Your task to perform on an android device: see tabs open on other devices in the chrome app Image 0: 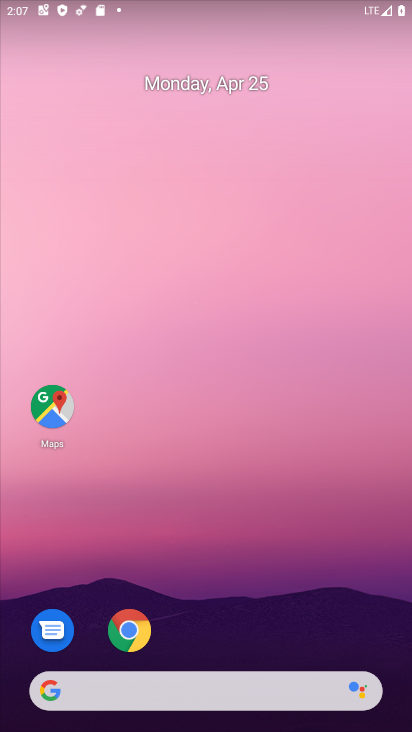
Step 0: drag from (349, 636) to (352, 198)
Your task to perform on an android device: see tabs open on other devices in the chrome app Image 1: 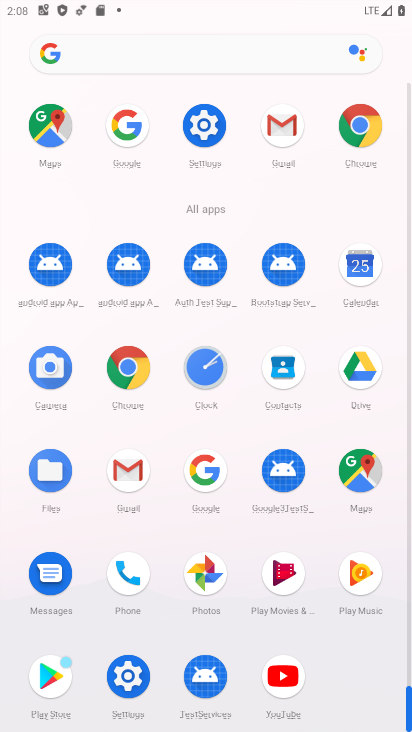
Step 1: click (370, 127)
Your task to perform on an android device: see tabs open on other devices in the chrome app Image 2: 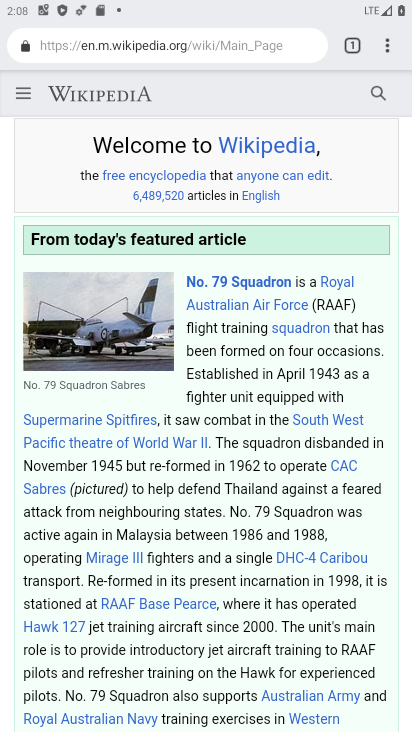
Step 2: click (387, 49)
Your task to perform on an android device: see tabs open on other devices in the chrome app Image 3: 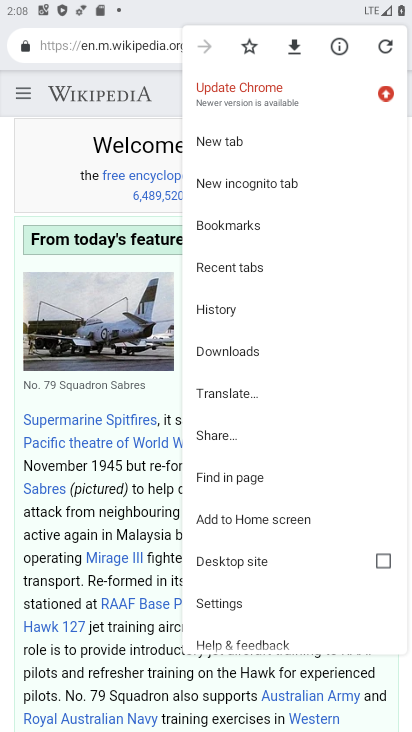
Step 3: click (253, 261)
Your task to perform on an android device: see tabs open on other devices in the chrome app Image 4: 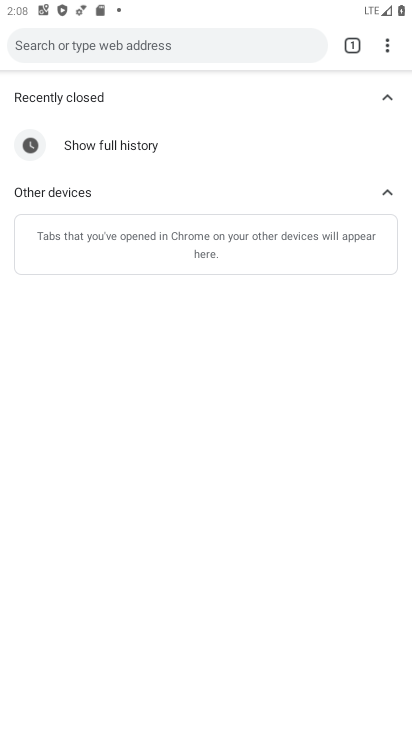
Step 4: click (351, 47)
Your task to perform on an android device: see tabs open on other devices in the chrome app Image 5: 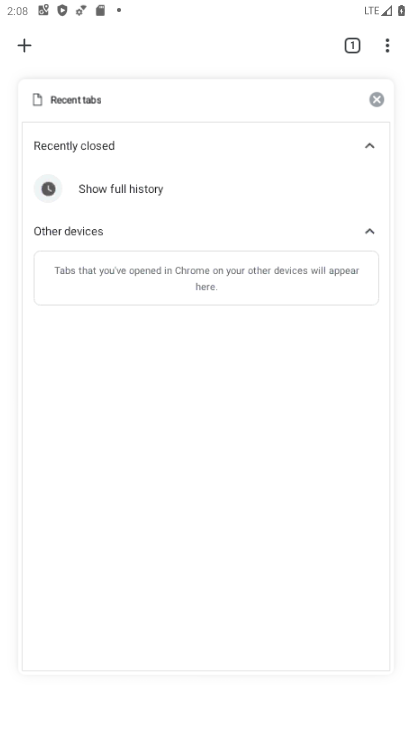
Step 5: task complete